Your task to perform on an android device: open a bookmark in the chrome app Image 0: 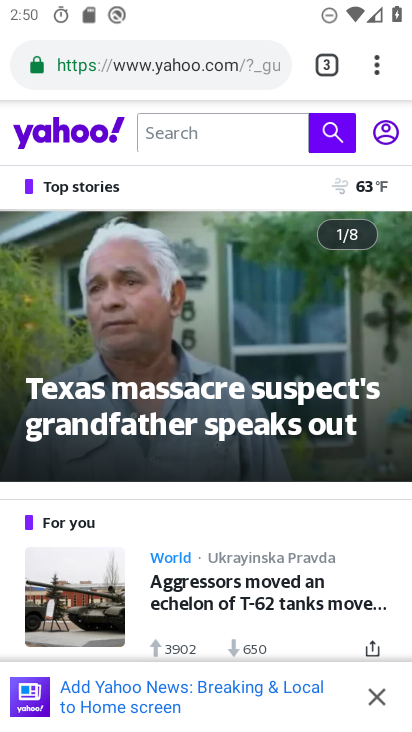
Step 0: drag from (388, 64) to (136, 240)
Your task to perform on an android device: open a bookmark in the chrome app Image 1: 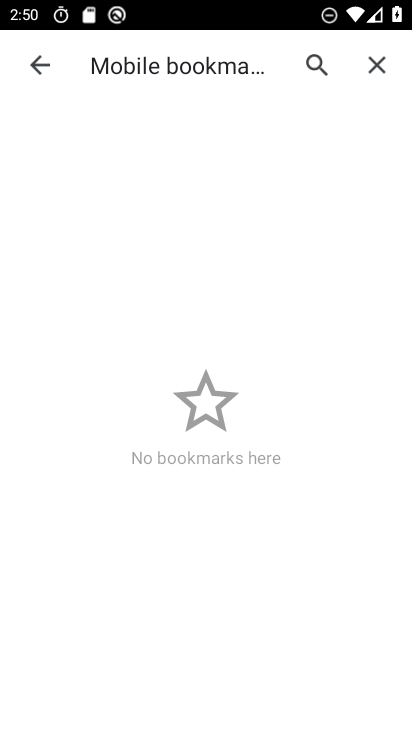
Step 1: task complete